Your task to perform on an android device: snooze an email in the gmail app Image 0: 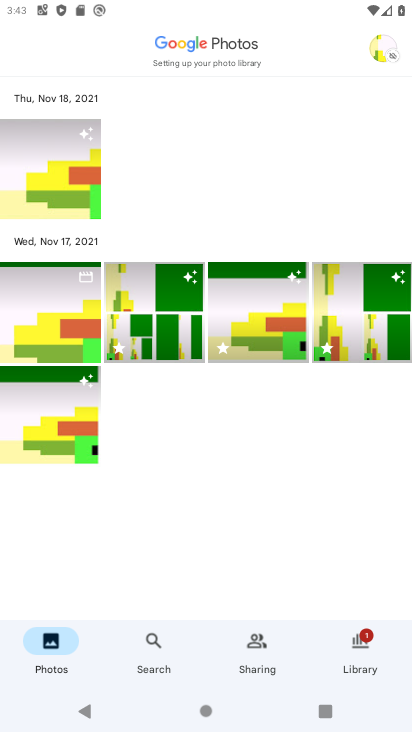
Step 0: press home button
Your task to perform on an android device: snooze an email in the gmail app Image 1: 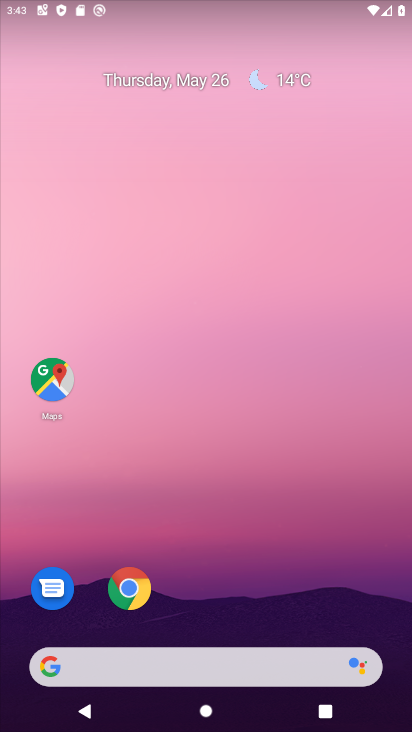
Step 1: drag from (239, 585) to (229, 46)
Your task to perform on an android device: snooze an email in the gmail app Image 2: 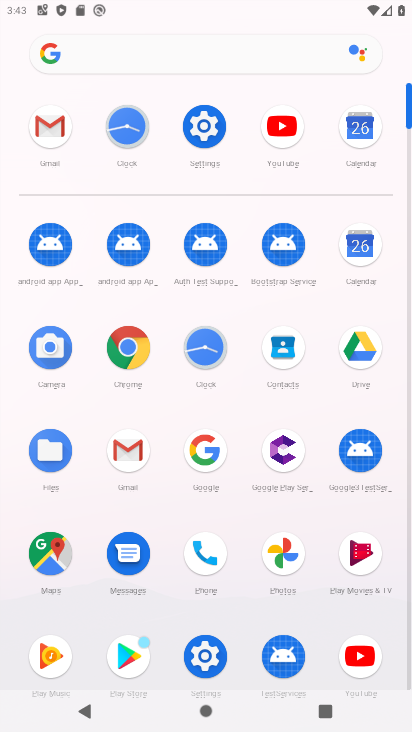
Step 2: click (46, 144)
Your task to perform on an android device: snooze an email in the gmail app Image 3: 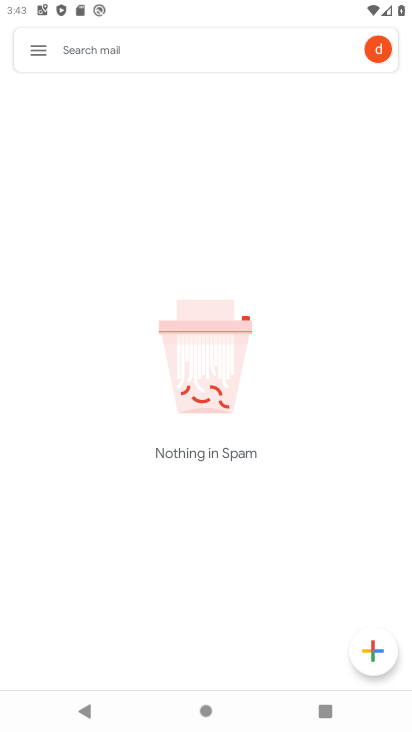
Step 3: click (45, 45)
Your task to perform on an android device: snooze an email in the gmail app Image 4: 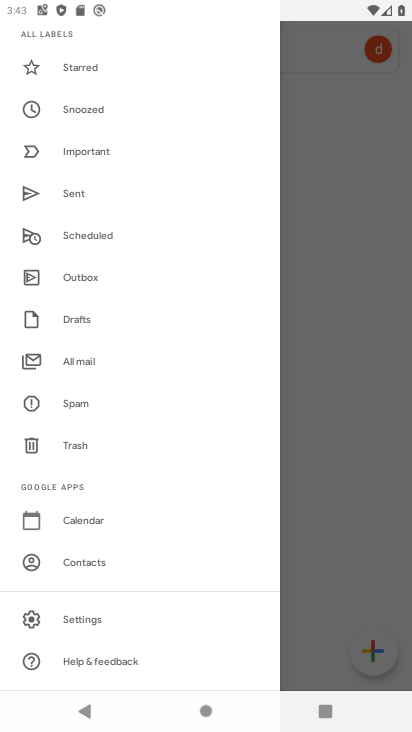
Step 4: click (82, 104)
Your task to perform on an android device: snooze an email in the gmail app Image 5: 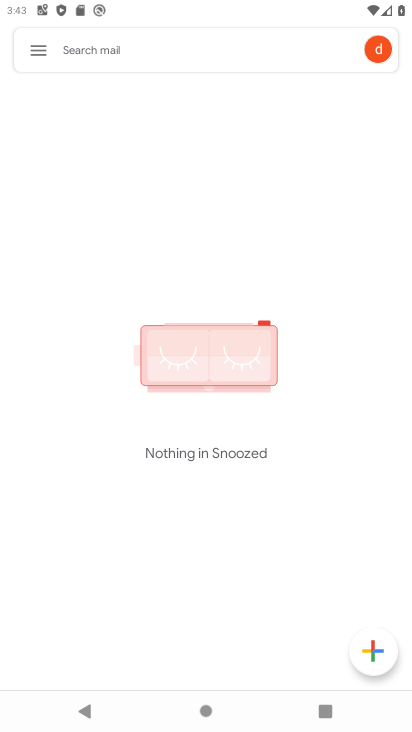
Step 5: task complete